Your task to perform on an android device: clear history in the chrome app Image 0: 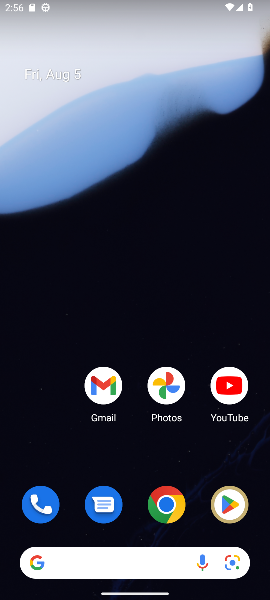
Step 0: click (158, 509)
Your task to perform on an android device: clear history in the chrome app Image 1: 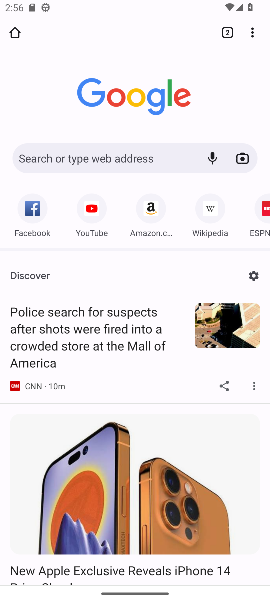
Step 1: click (261, 24)
Your task to perform on an android device: clear history in the chrome app Image 2: 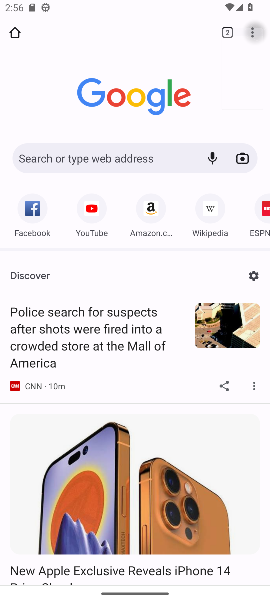
Step 2: click (255, 35)
Your task to perform on an android device: clear history in the chrome app Image 3: 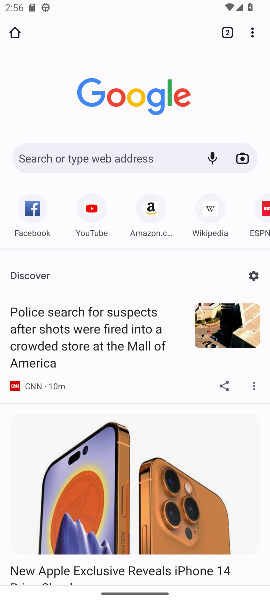
Step 3: click (255, 33)
Your task to perform on an android device: clear history in the chrome app Image 4: 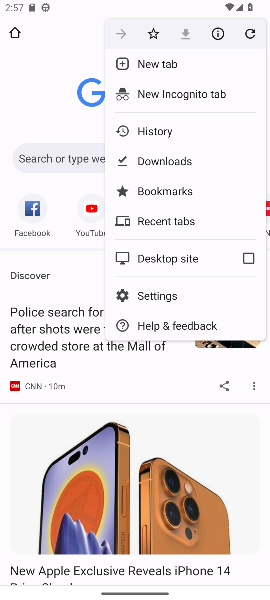
Step 4: click (167, 137)
Your task to perform on an android device: clear history in the chrome app Image 5: 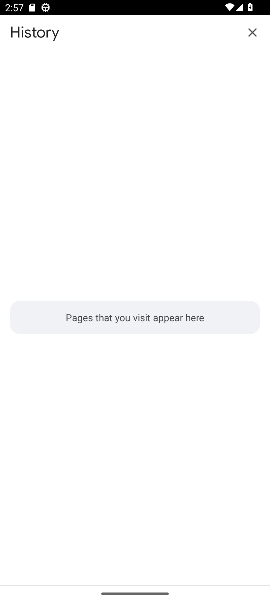
Step 5: task complete